Your task to perform on an android device: Open Google Chrome and click the shortcut for Amazon.com Image 0: 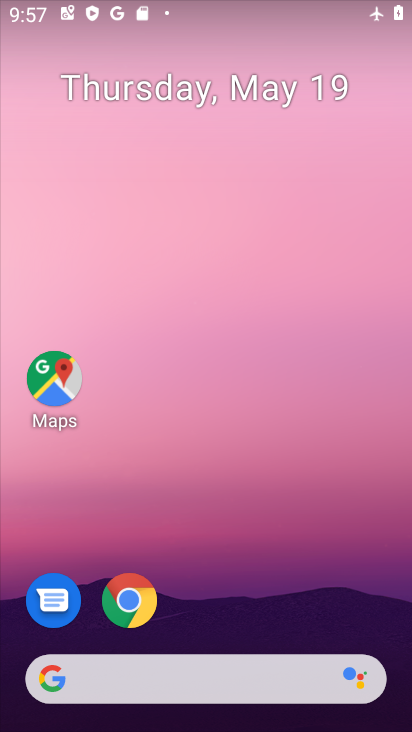
Step 0: drag from (307, 516) to (218, 4)
Your task to perform on an android device: Open Google Chrome and click the shortcut for Amazon.com Image 1: 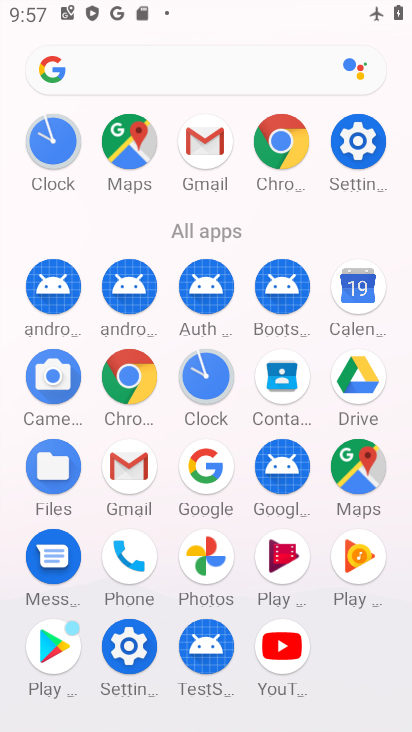
Step 1: click (129, 372)
Your task to perform on an android device: Open Google Chrome and click the shortcut for Amazon.com Image 2: 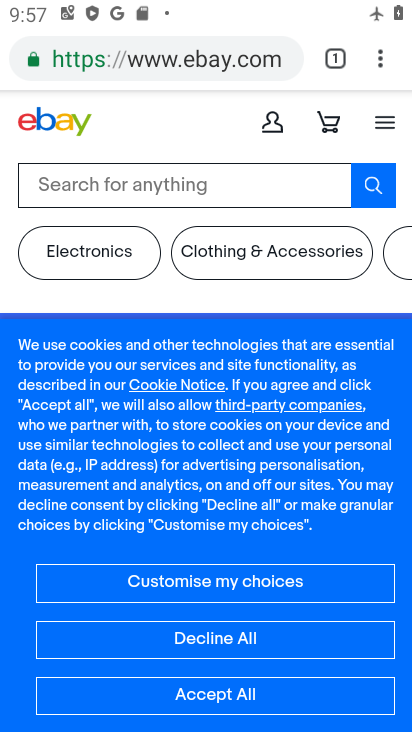
Step 2: drag from (374, 57) to (26, 108)
Your task to perform on an android device: Open Google Chrome and click the shortcut for Amazon.com Image 3: 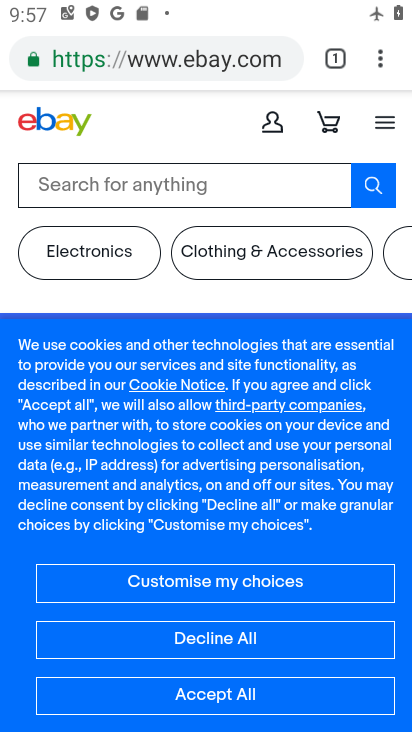
Step 3: click (61, 42)
Your task to perform on an android device: Open Google Chrome and click the shortcut for Amazon.com Image 4: 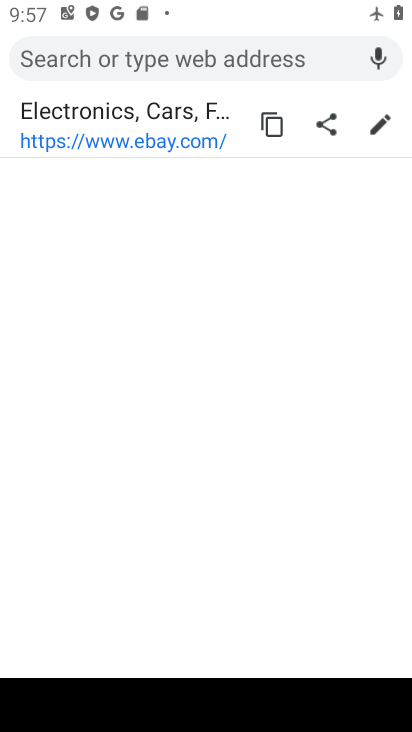
Step 4: type "Amazon.com"
Your task to perform on an android device: Open Google Chrome and click the shortcut for Amazon.com Image 5: 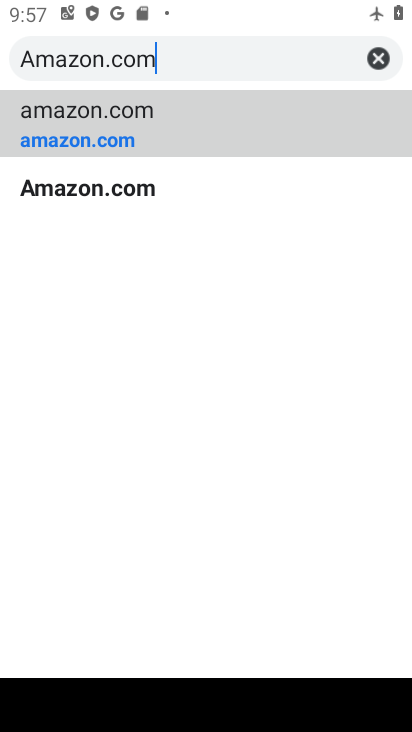
Step 5: type ""
Your task to perform on an android device: Open Google Chrome and click the shortcut for Amazon.com Image 6: 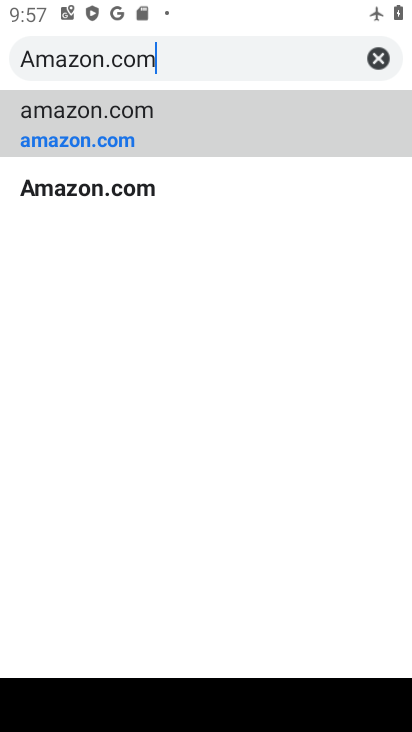
Step 6: click (100, 120)
Your task to perform on an android device: Open Google Chrome and click the shortcut for Amazon.com Image 7: 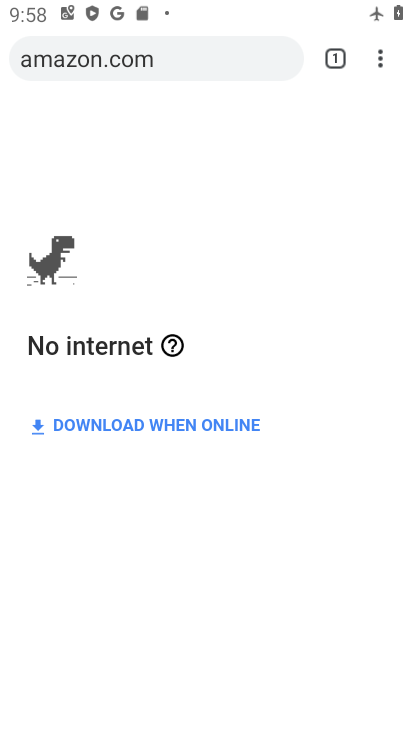
Step 7: task complete